Your task to perform on an android device: Do I have any events tomorrow? Image 0: 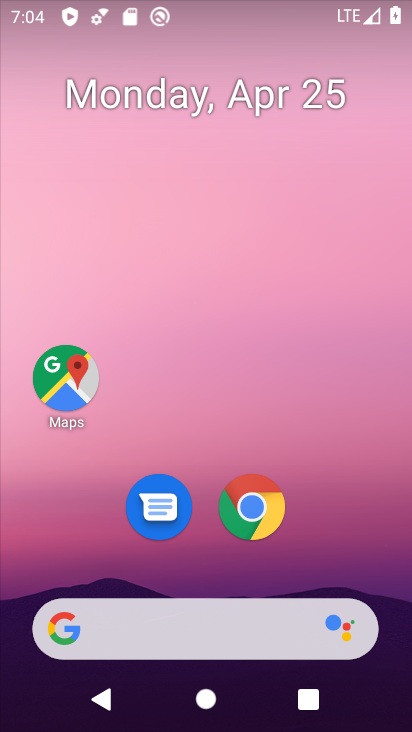
Step 0: click (345, 156)
Your task to perform on an android device: Do I have any events tomorrow? Image 1: 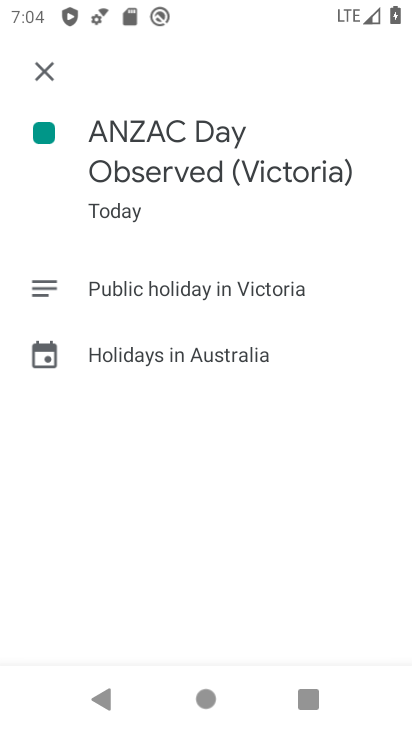
Step 1: press home button
Your task to perform on an android device: Do I have any events tomorrow? Image 2: 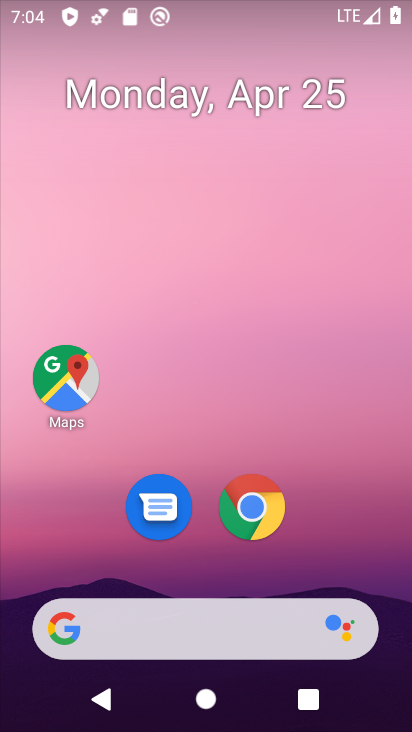
Step 2: drag from (359, 487) to (338, 6)
Your task to perform on an android device: Do I have any events tomorrow? Image 3: 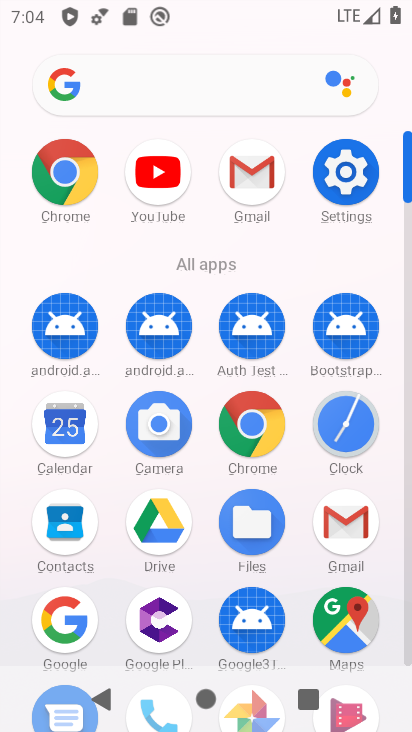
Step 3: click (57, 433)
Your task to perform on an android device: Do I have any events tomorrow? Image 4: 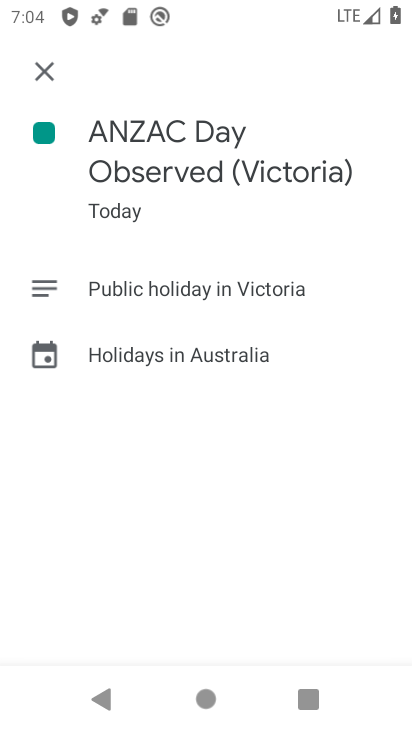
Step 4: click (39, 69)
Your task to perform on an android device: Do I have any events tomorrow? Image 5: 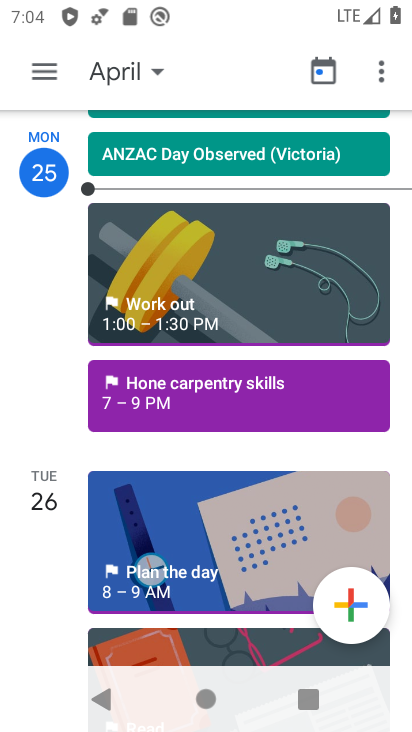
Step 5: click (147, 78)
Your task to perform on an android device: Do I have any events tomorrow? Image 6: 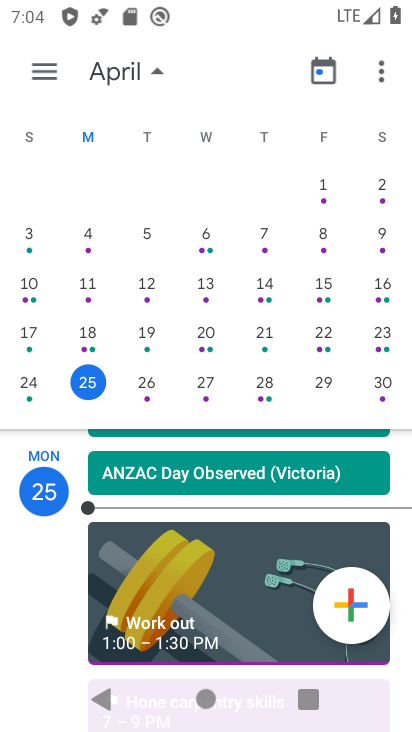
Step 6: click (137, 389)
Your task to perform on an android device: Do I have any events tomorrow? Image 7: 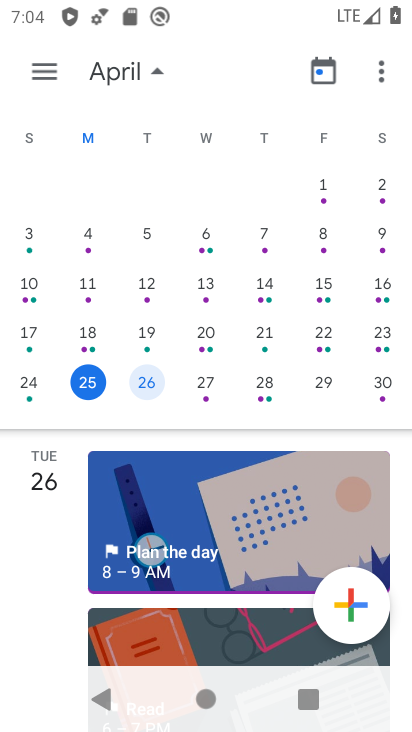
Step 7: task complete